Your task to perform on an android device: Search for the best books of all time on Goodreads Image 0: 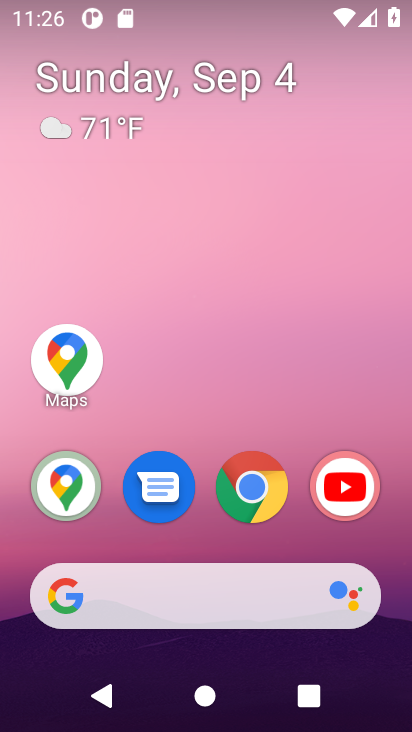
Step 0: click (248, 507)
Your task to perform on an android device: Search for the best books of all time on Goodreads Image 1: 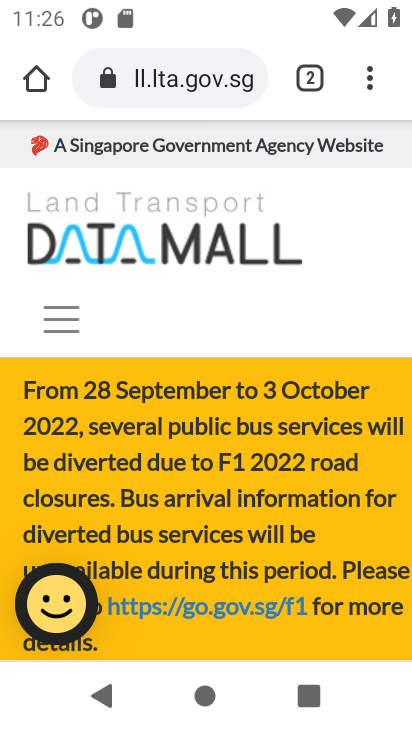
Step 1: task complete